Your task to perform on an android device: Add razer blackwidow to the cart on walmart.com Image 0: 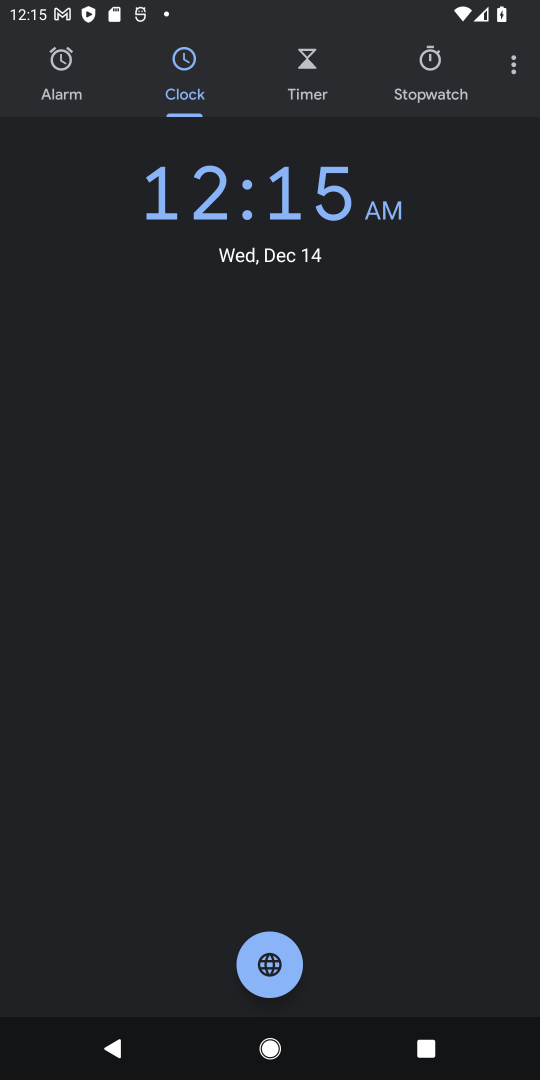
Step 0: press home button
Your task to perform on an android device: Add razer blackwidow to the cart on walmart.com Image 1: 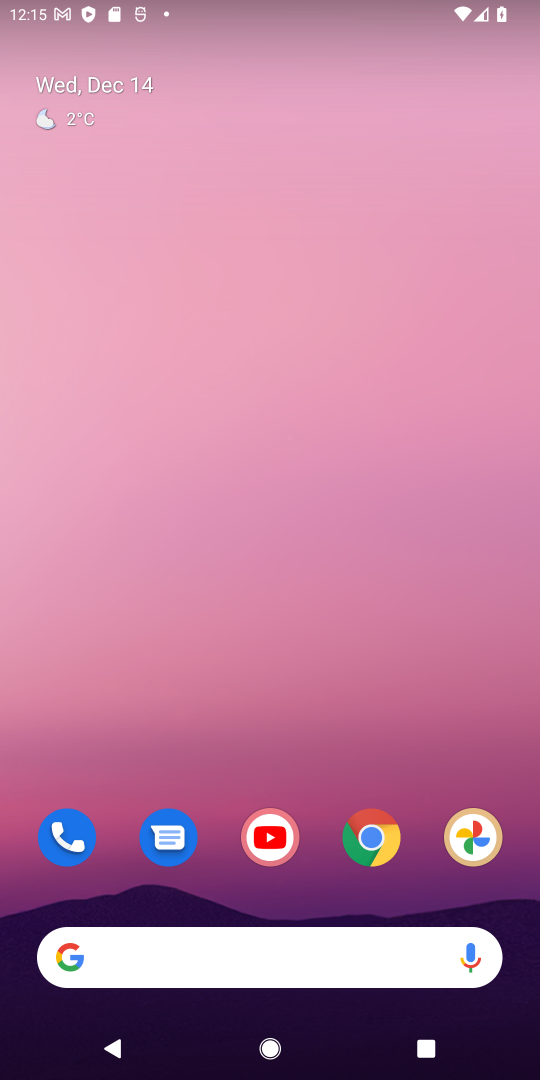
Step 1: click (351, 956)
Your task to perform on an android device: Add razer blackwidow to the cart on walmart.com Image 2: 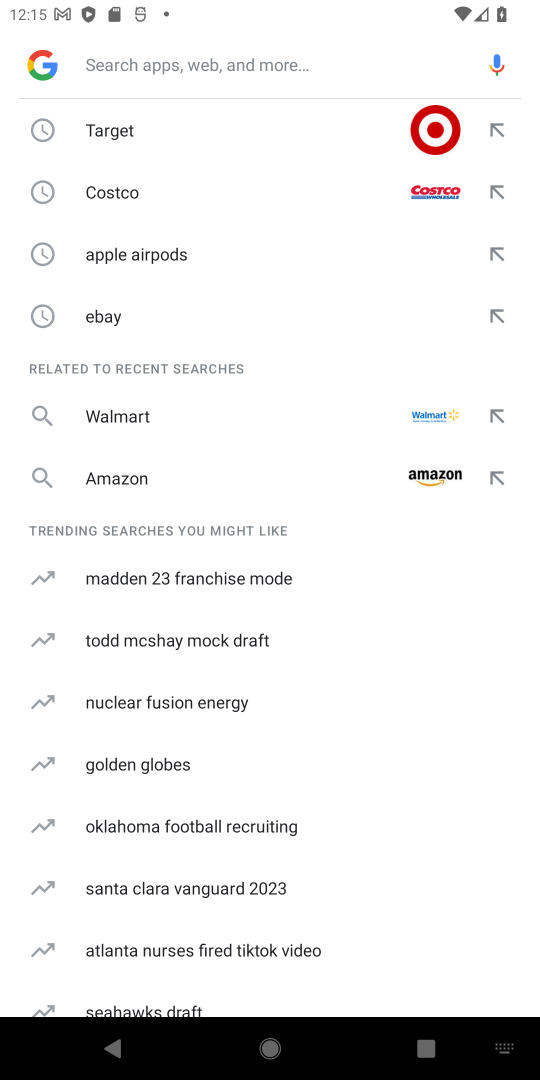
Step 2: click (225, 410)
Your task to perform on an android device: Add razer blackwidow to the cart on walmart.com Image 3: 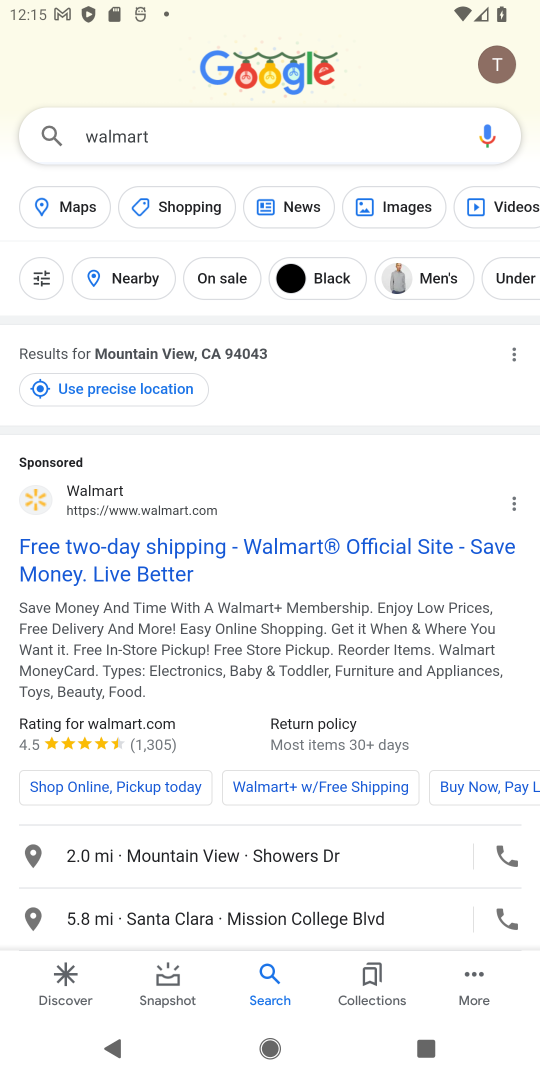
Step 3: click (89, 547)
Your task to perform on an android device: Add razer blackwidow to the cart on walmart.com Image 4: 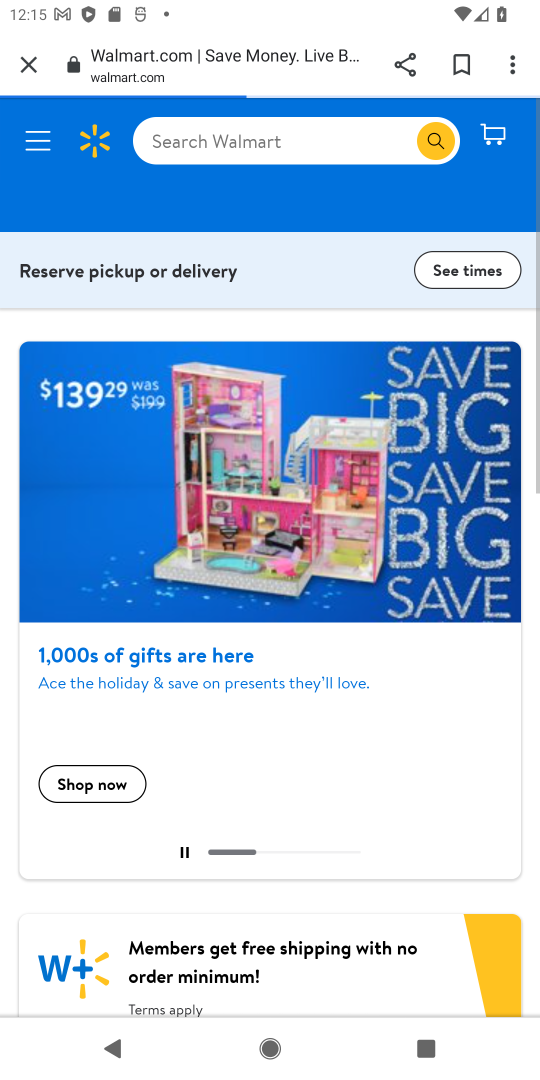
Step 4: click (256, 155)
Your task to perform on an android device: Add razer blackwidow to the cart on walmart.com Image 5: 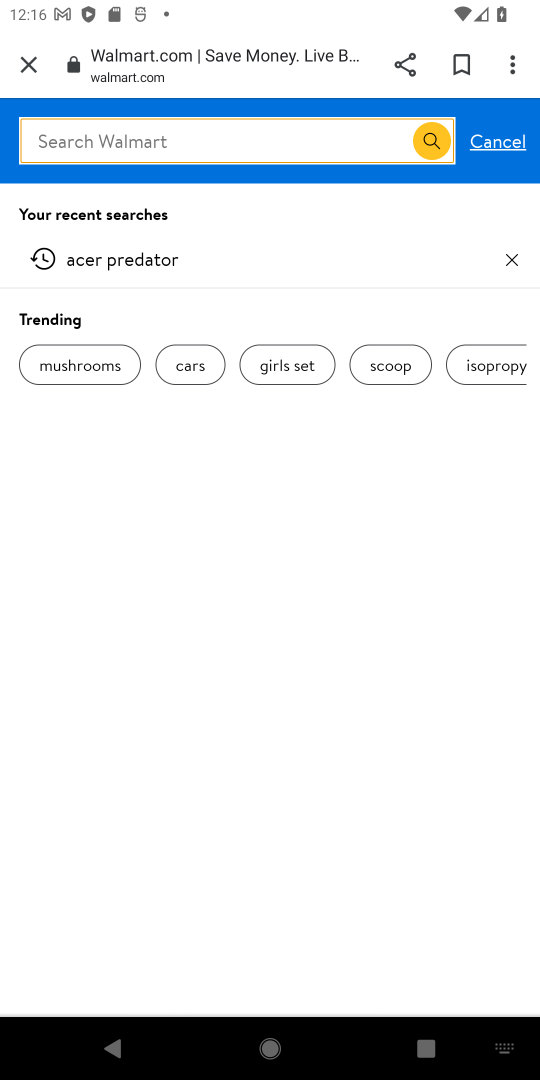
Step 5: type "razer blackwidow"
Your task to perform on an android device: Add razer blackwidow to the cart on walmart.com Image 6: 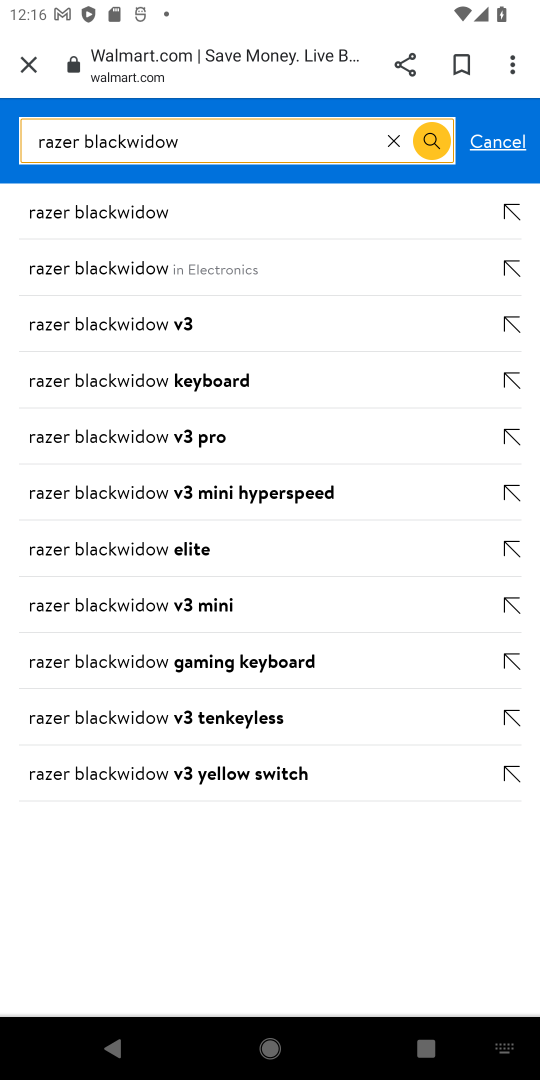
Step 6: click (429, 155)
Your task to perform on an android device: Add razer blackwidow to the cart on walmart.com Image 7: 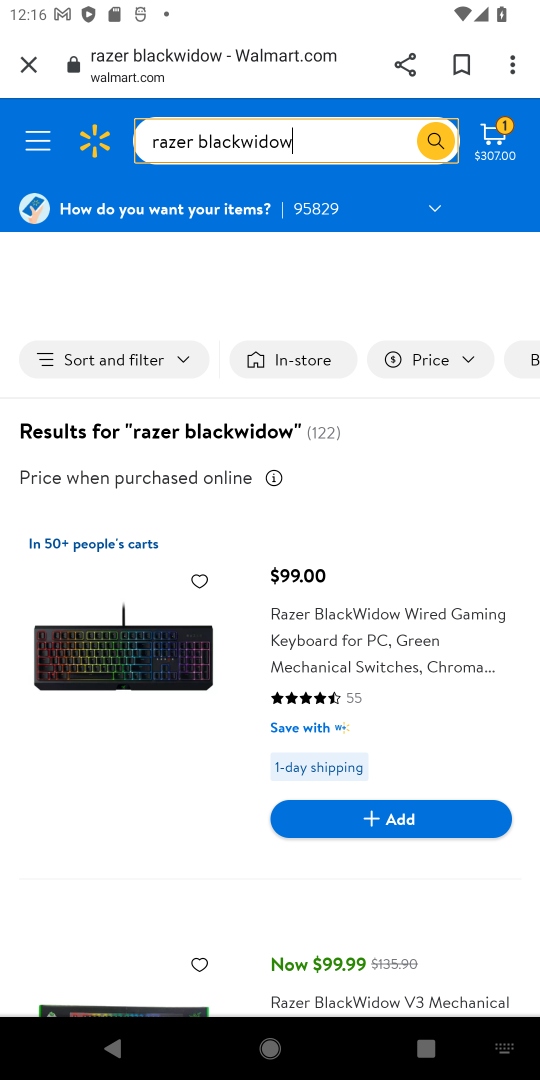
Step 7: click (383, 812)
Your task to perform on an android device: Add razer blackwidow to the cart on walmart.com Image 8: 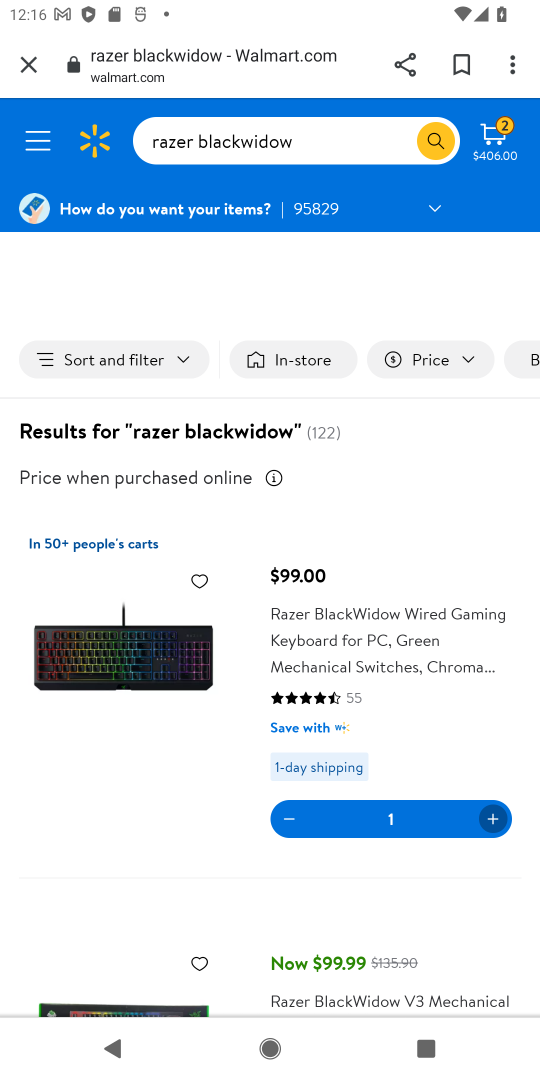
Step 8: task complete